Your task to perform on an android device: Open calendar and show me the third week of next month Image 0: 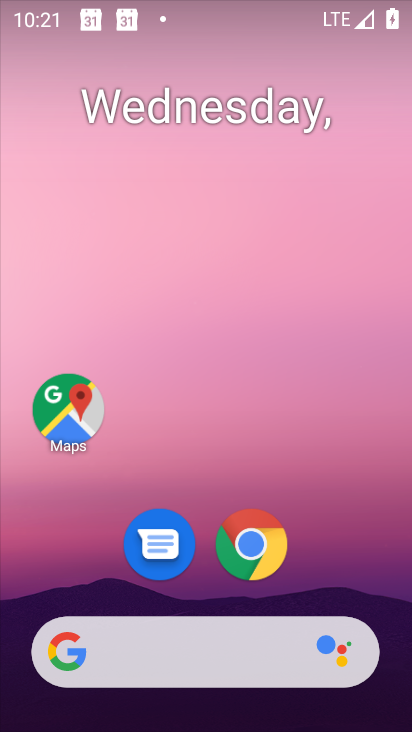
Step 0: drag from (365, 550) to (258, 106)
Your task to perform on an android device: Open calendar and show me the third week of next month Image 1: 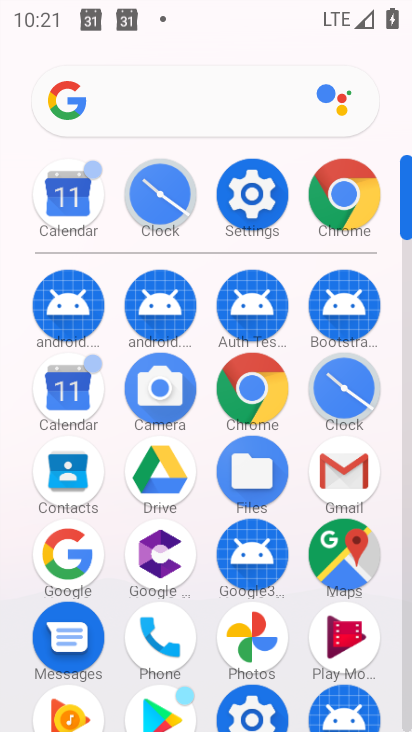
Step 1: click (66, 393)
Your task to perform on an android device: Open calendar and show me the third week of next month Image 2: 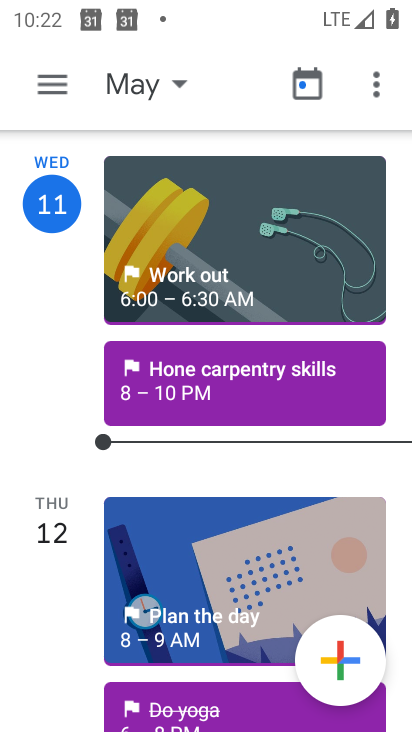
Step 2: click (139, 80)
Your task to perform on an android device: Open calendar and show me the third week of next month Image 3: 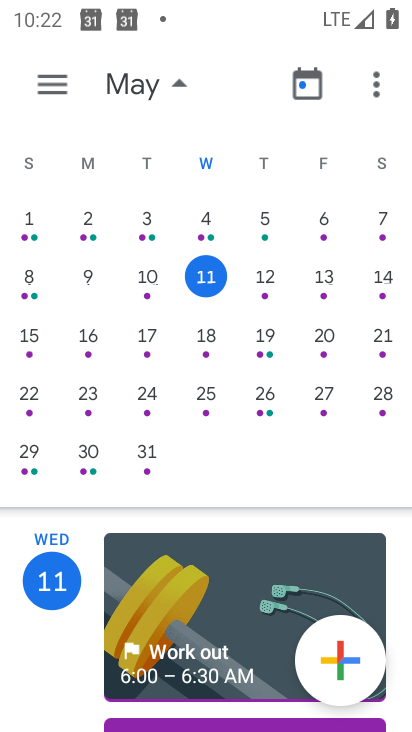
Step 3: drag from (340, 283) to (15, 334)
Your task to perform on an android device: Open calendar and show me the third week of next month Image 4: 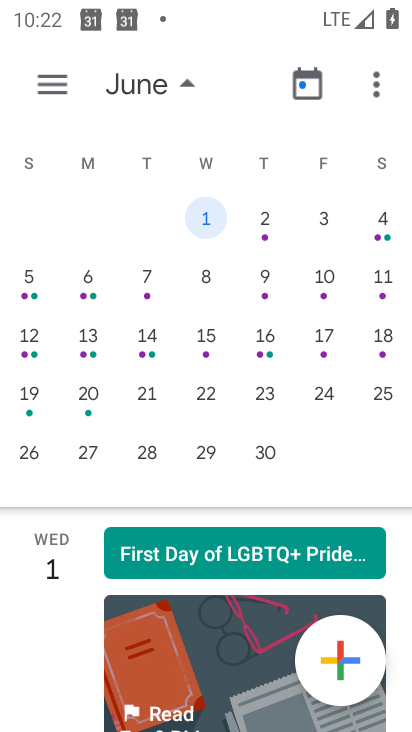
Step 4: click (40, 350)
Your task to perform on an android device: Open calendar and show me the third week of next month Image 5: 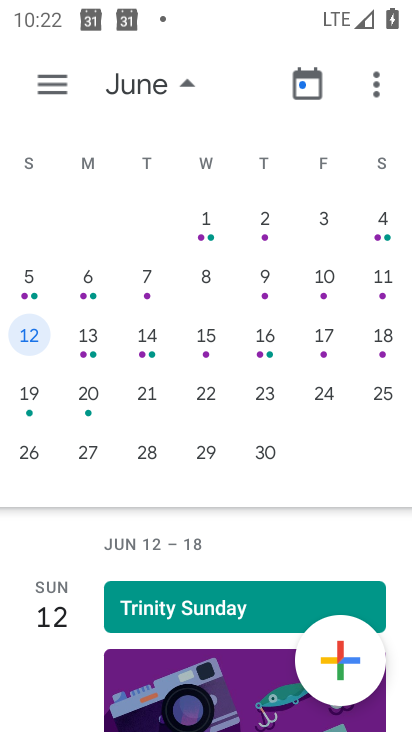
Step 5: task complete